Your task to perform on an android device: toggle data saver in the chrome app Image 0: 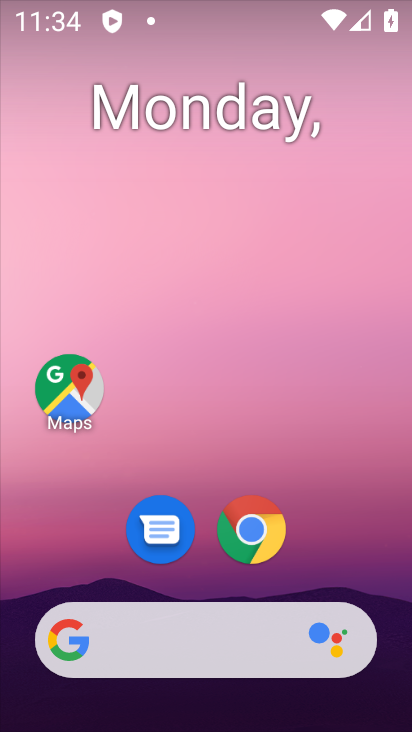
Step 0: click (256, 534)
Your task to perform on an android device: toggle data saver in the chrome app Image 1: 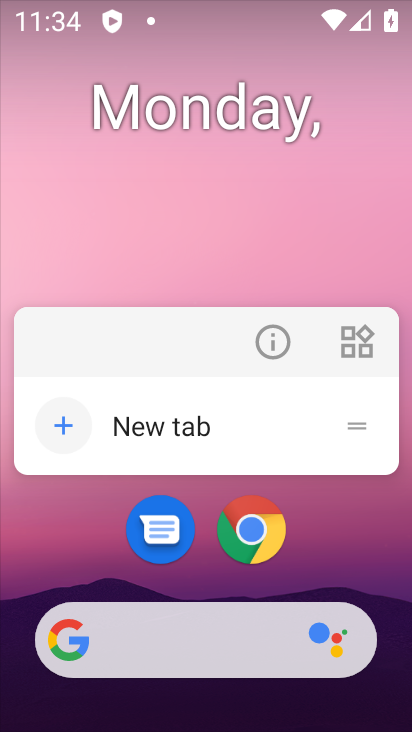
Step 1: click (256, 534)
Your task to perform on an android device: toggle data saver in the chrome app Image 2: 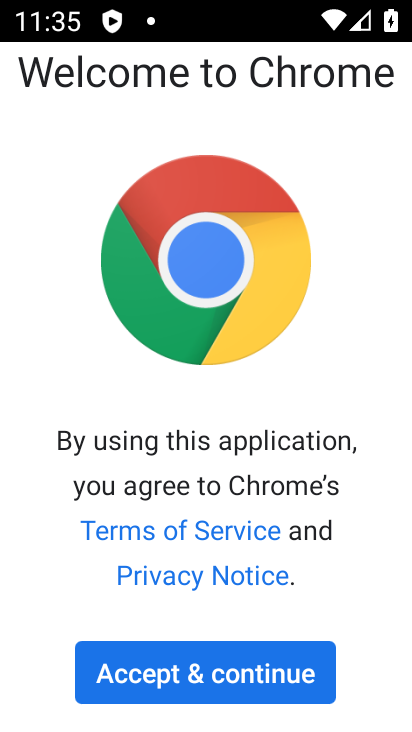
Step 2: click (306, 666)
Your task to perform on an android device: toggle data saver in the chrome app Image 3: 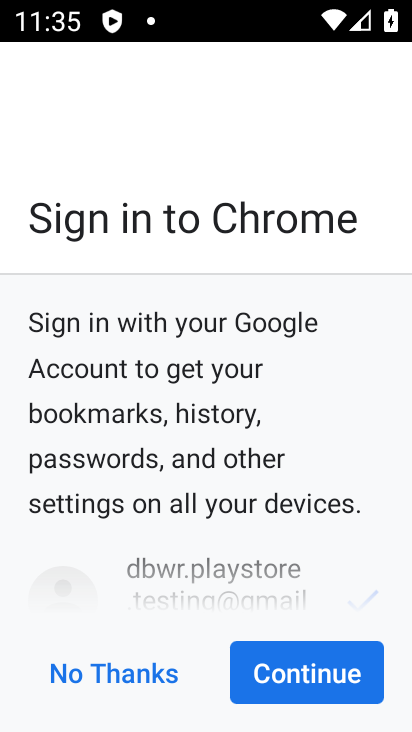
Step 3: click (320, 673)
Your task to perform on an android device: toggle data saver in the chrome app Image 4: 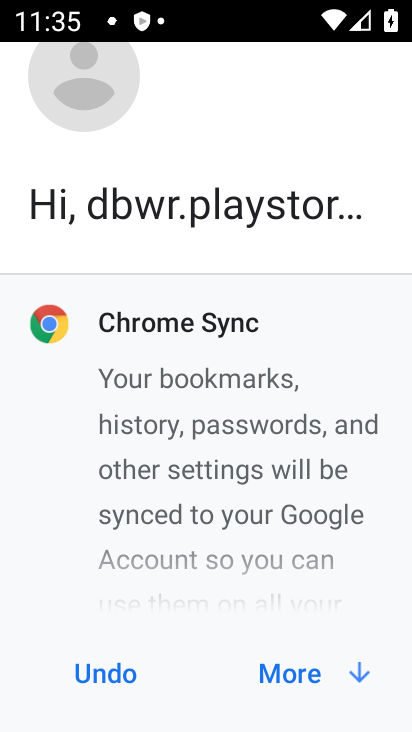
Step 4: click (320, 673)
Your task to perform on an android device: toggle data saver in the chrome app Image 5: 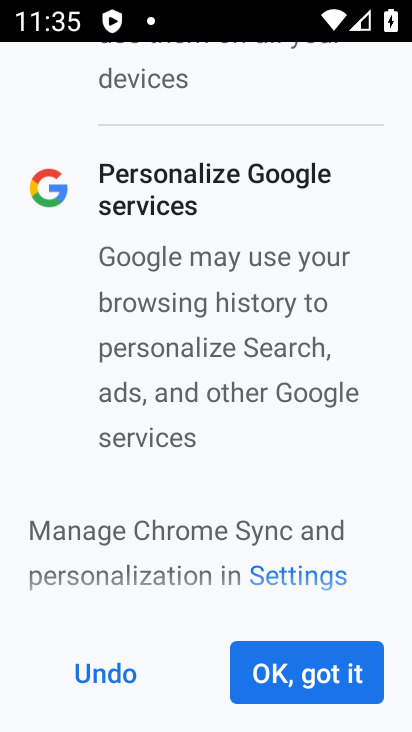
Step 5: click (320, 673)
Your task to perform on an android device: toggle data saver in the chrome app Image 6: 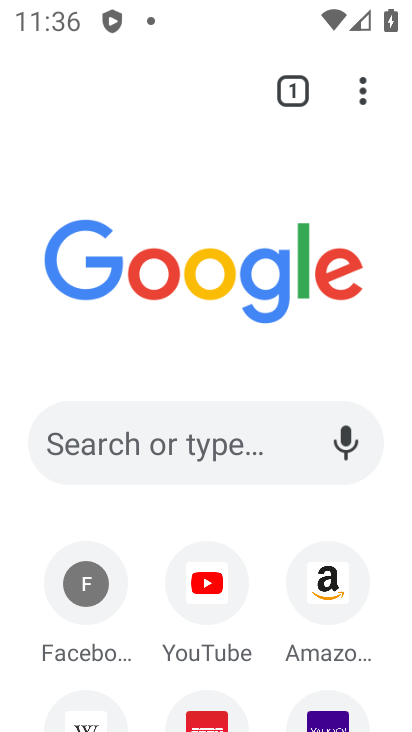
Step 6: click (360, 83)
Your task to perform on an android device: toggle data saver in the chrome app Image 7: 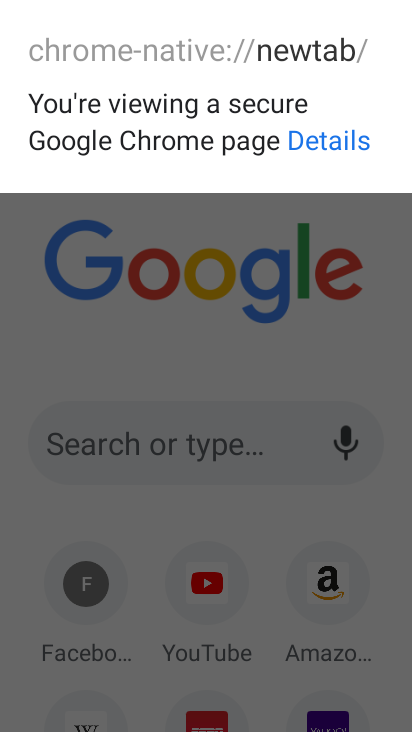
Step 7: click (312, 235)
Your task to perform on an android device: toggle data saver in the chrome app Image 8: 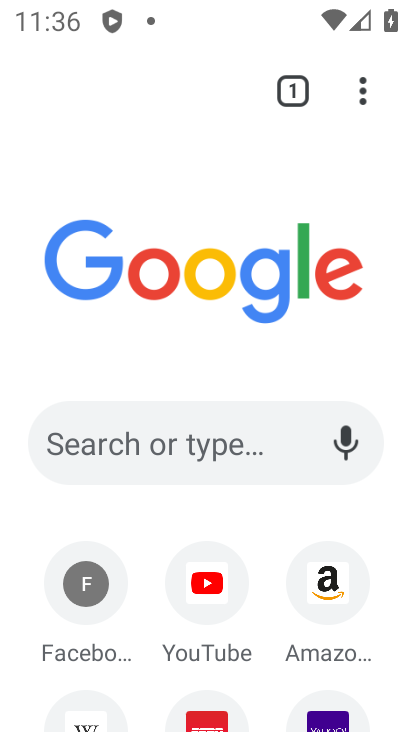
Step 8: drag from (364, 101) to (136, 564)
Your task to perform on an android device: toggle data saver in the chrome app Image 9: 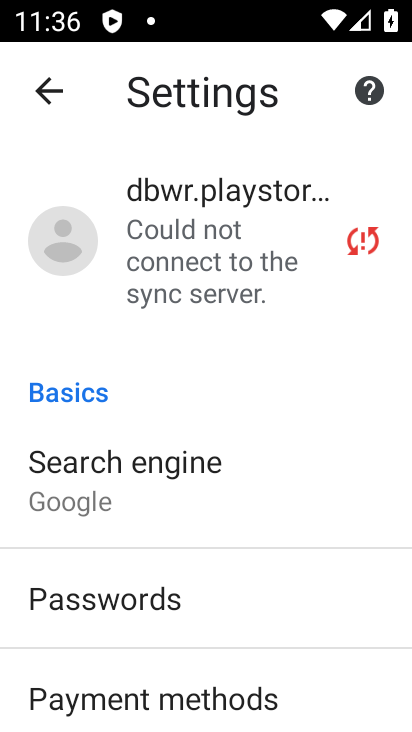
Step 9: drag from (149, 589) to (247, 270)
Your task to perform on an android device: toggle data saver in the chrome app Image 10: 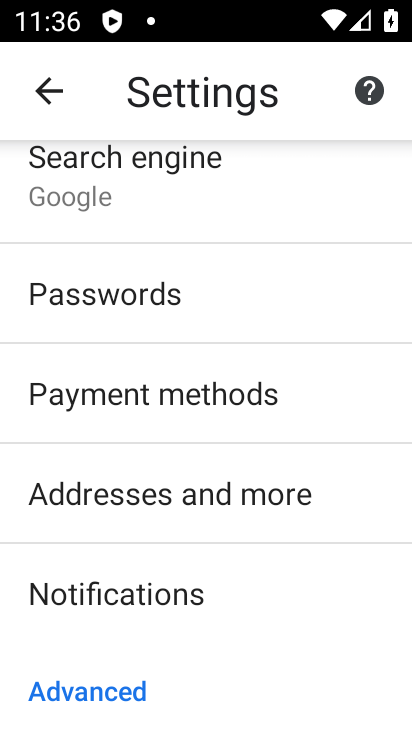
Step 10: drag from (191, 634) to (321, 5)
Your task to perform on an android device: toggle data saver in the chrome app Image 11: 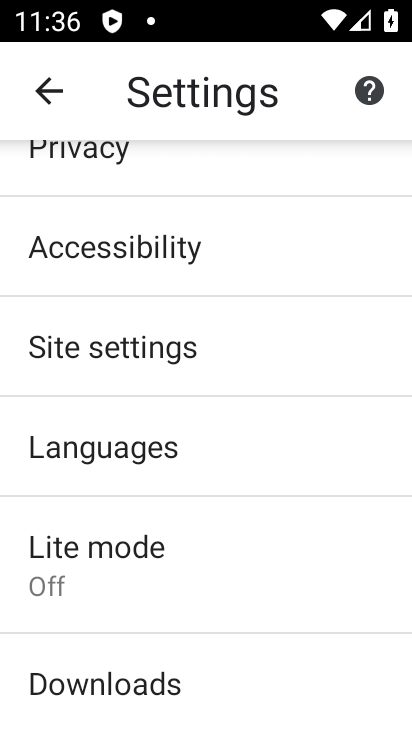
Step 11: drag from (180, 617) to (176, 289)
Your task to perform on an android device: toggle data saver in the chrome app Image 12: 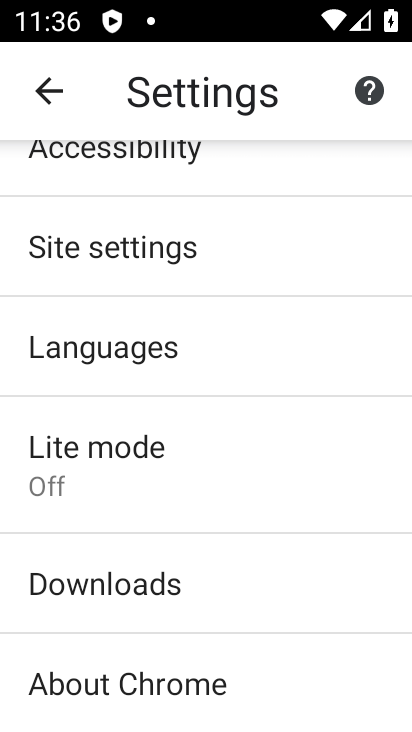
Step 12: click (117, 459)
Your task to perform on an android device: toggle data saver in the chrome app Image 13: 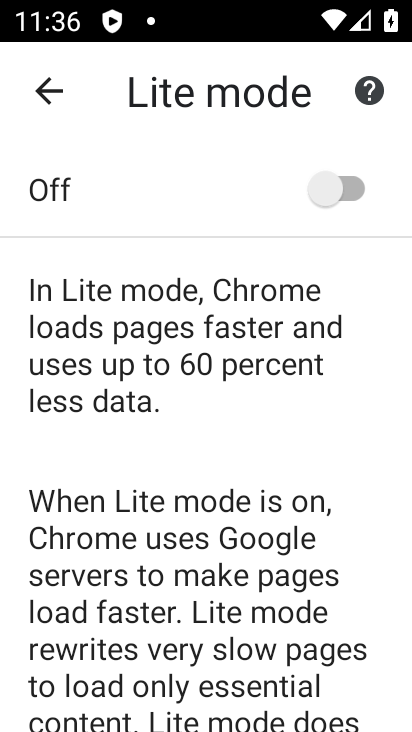
Step 13: click (240, 193)
Your task to perform on an android device: toggle data saver in the chrome app Image 14: 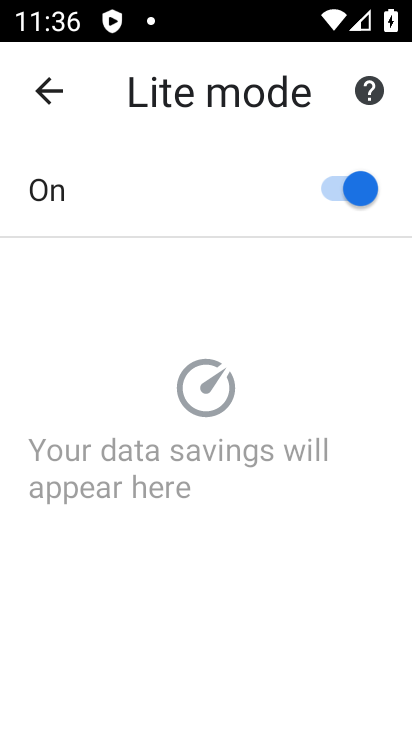
Step 14: task complete